Your task to perform on an android device: Open calendar and show me the second week of next month Image 0: 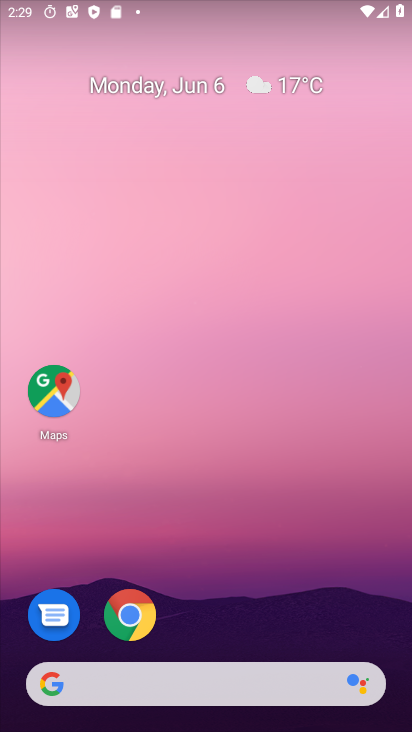
Step 0: drag from (191, 607) to (263, 41)
Your task to perform on an android device: Open calendar and show me the second week of next month Image 1: 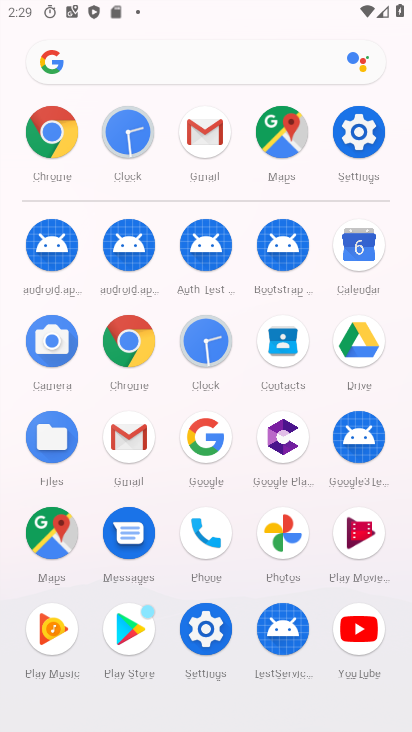
Step 1: click (356, 244)
Your task to perform on an android device: Open calendar and show me the second week of next month Image 2: 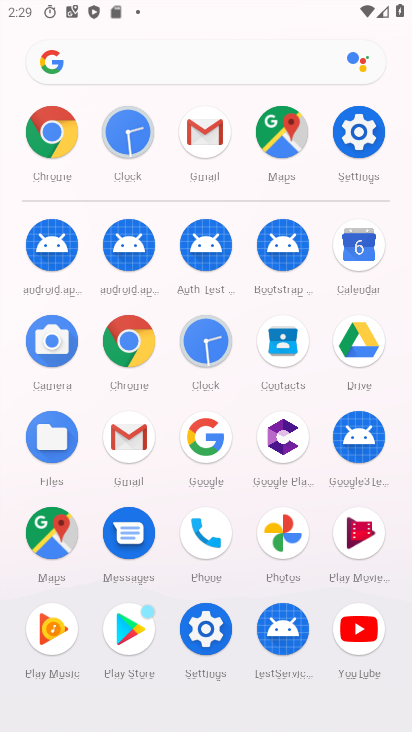
Step 2: click (356, 244)
Your task to perform on an android device: Open calendar and show me the second week of next month Image 3: 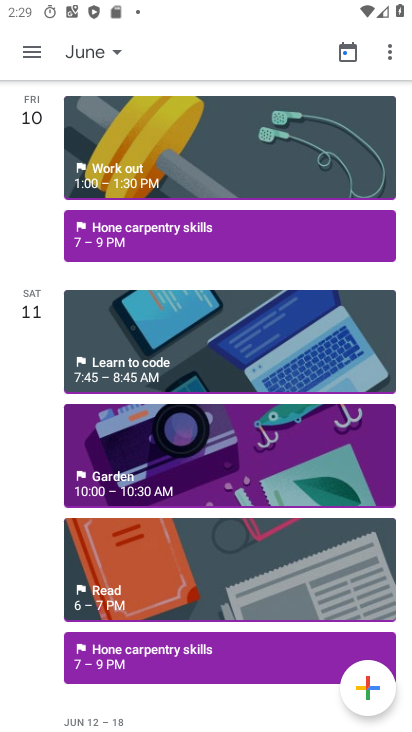
Step 3: click (88, 54)
Your task to perform on an android device: Open calendar and show me the second week of next month Image 4: 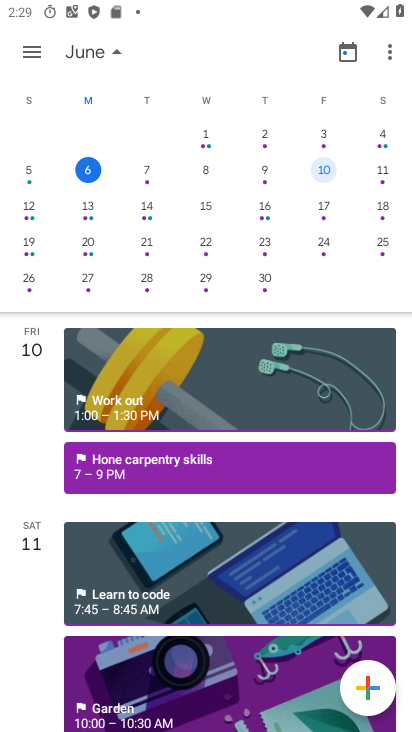
Step 4: drag from (363, 193) to (37, 199)
Your task to perform on an android device: Open calendar and show me the second week of next month Image 5: 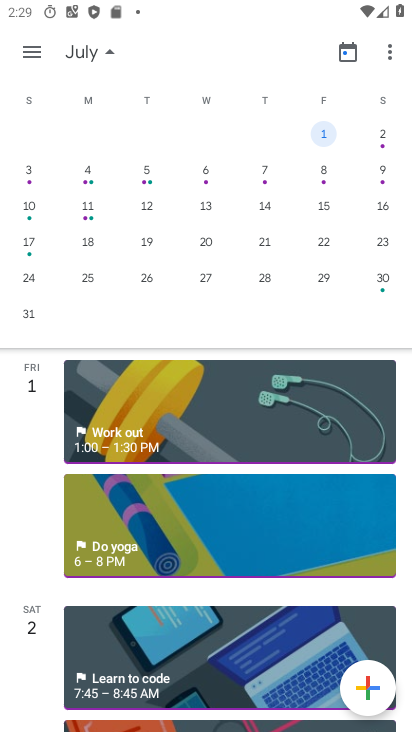
Step 5: click (322, 167)
Your task to perform on an android device: Open calendar and show me the second week of next month Image 6: 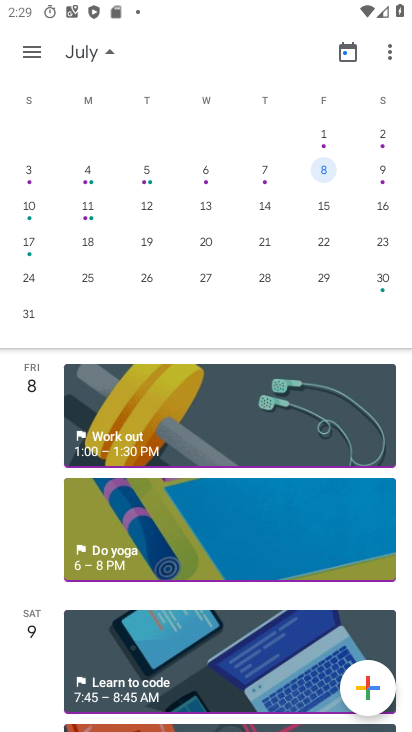
Step 6: task complete